Your task to perform on an android device: Check the weather Image 0: 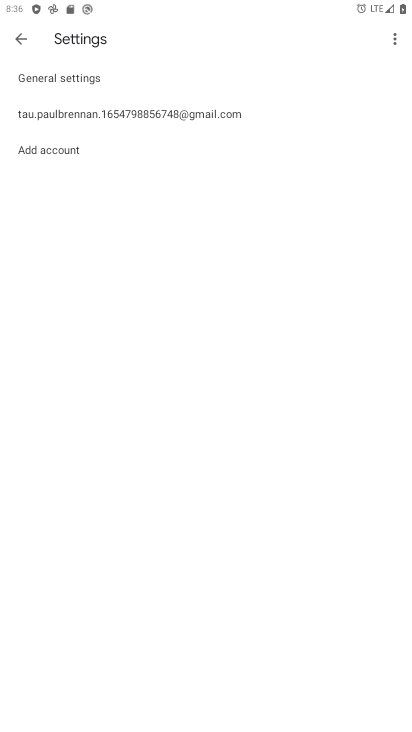
Step 0: click (11, 37)
Your task to perform on an android device: Check the weather Image 1: 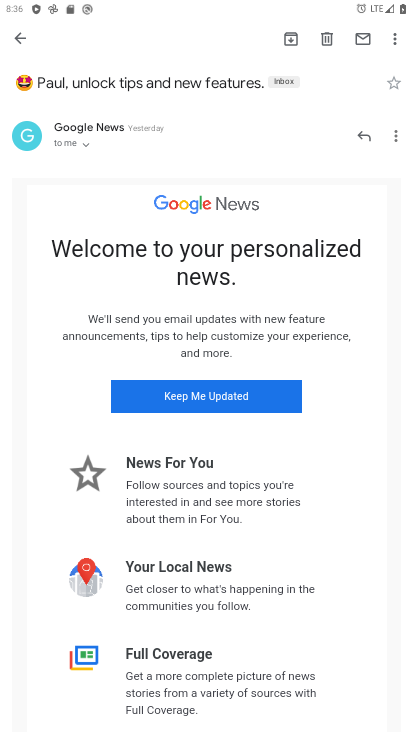
Step 1: press back button
Your task to perform on an android device: Check the weather Image 2: 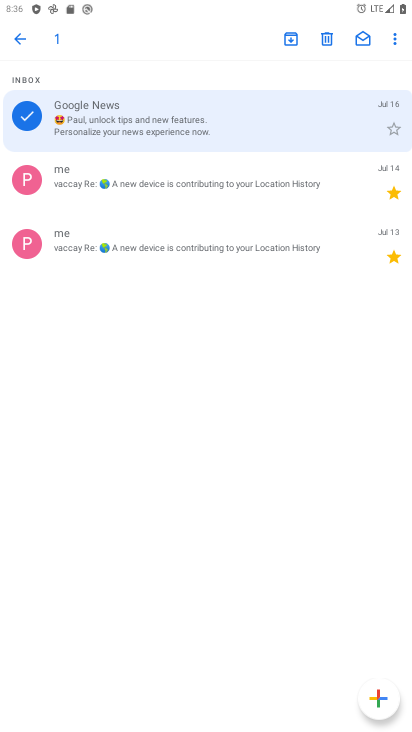
Step 2: press home button
Your task to perform on an android device: Check the weather Image 3: 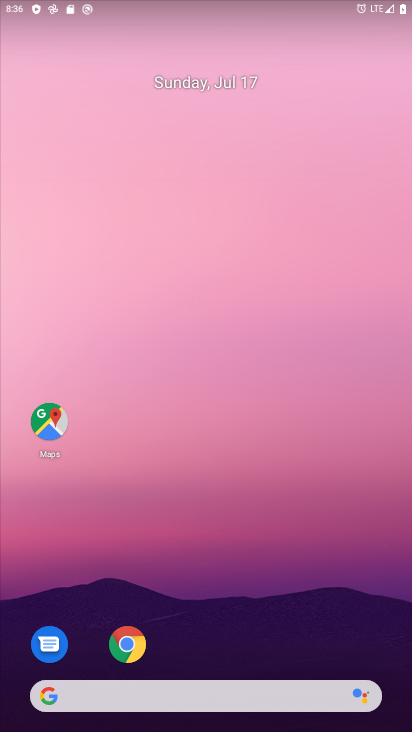
Step 3: click (228, 72)
Your task to perform on an android device: Check the weather Image 4: 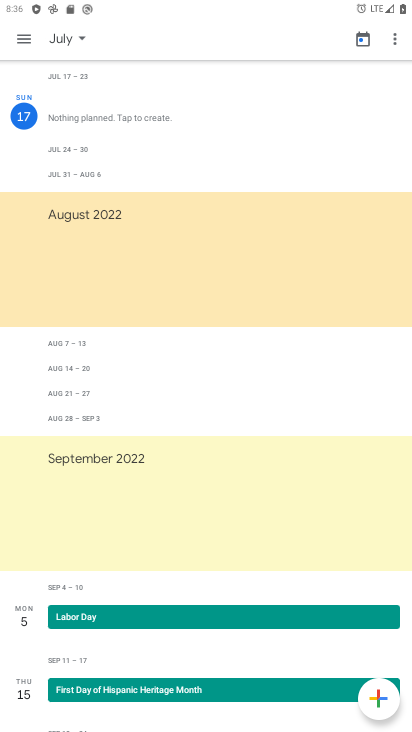
Step 4: press home button
Your task to perform on an android device: Check the weather Image 5: 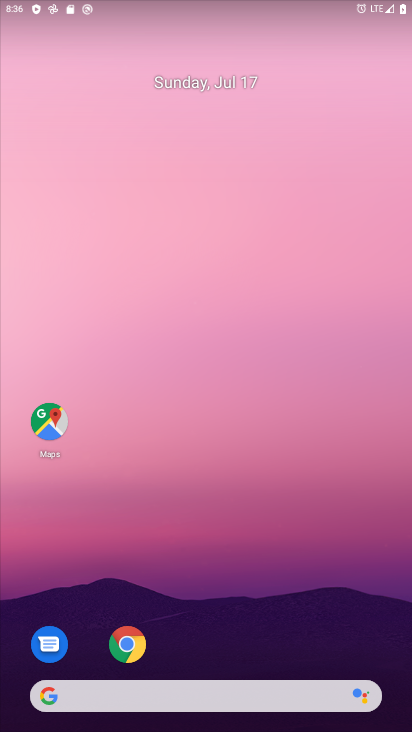
Step 5: drag from (201, 579) to (137, 212)
Your task to perform on an android device: Check the weather Image 6: 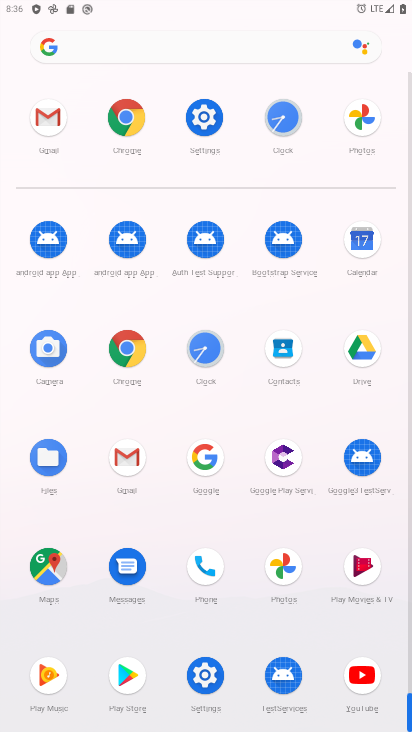
Step 6: click (132, 134)
Your task to perform on an android device: Check the weather Image 7: 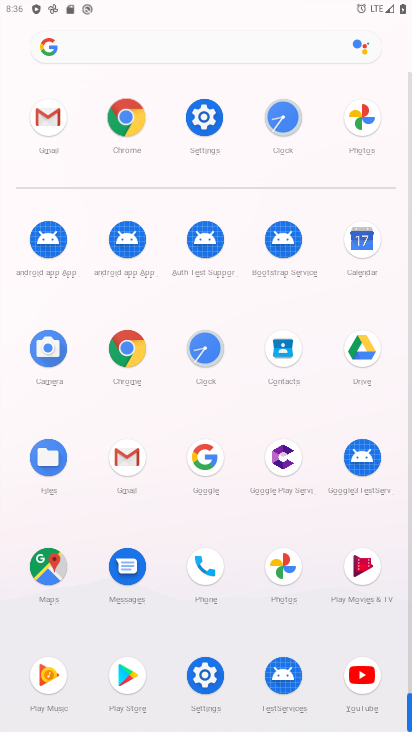
Step 7: click (132, 134)
Your task to perform on an android device: Check the weather Image 8: 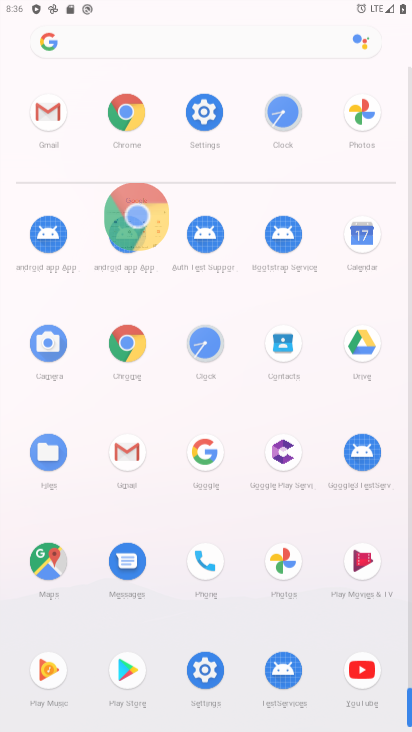
Step 8: click (132, 134)
Your task to perform on an android device: Check the weather Image 9: 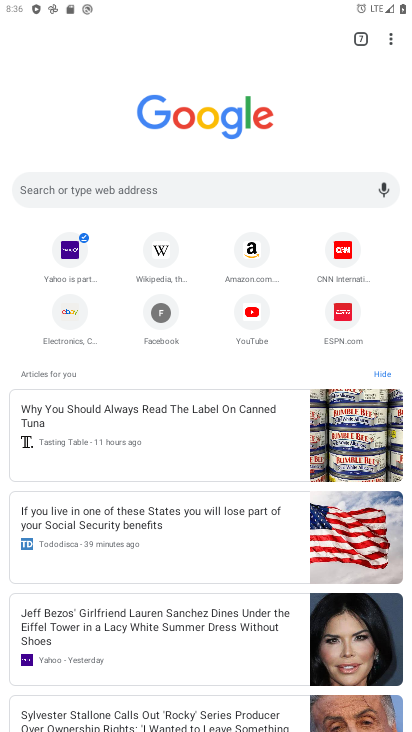
Step 9: click (57, 187)
Your task to perform on an android device: Check the weather Image 10: 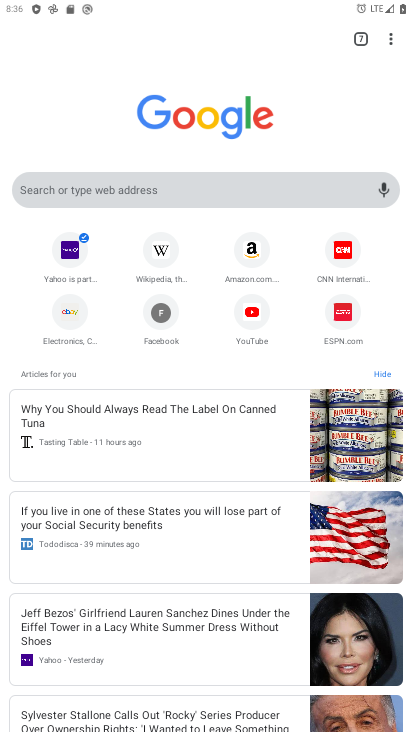
Step 10: click (57, 187)
Your task to perform on an android device: Check the weather Image 11: 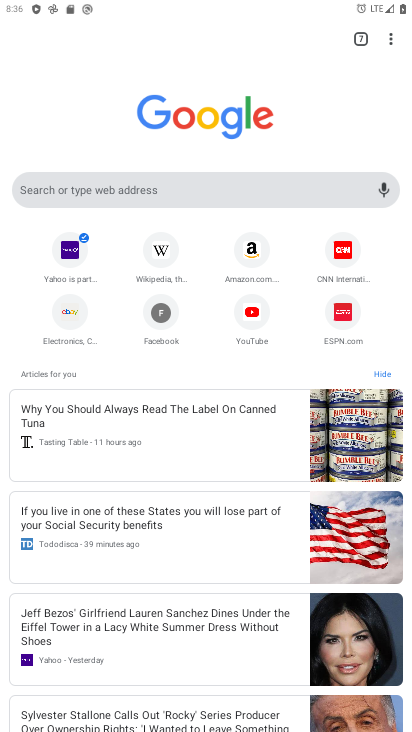
Step 11: click (57, 187)
Your task to perform on an android device: Check the weather Image 12: 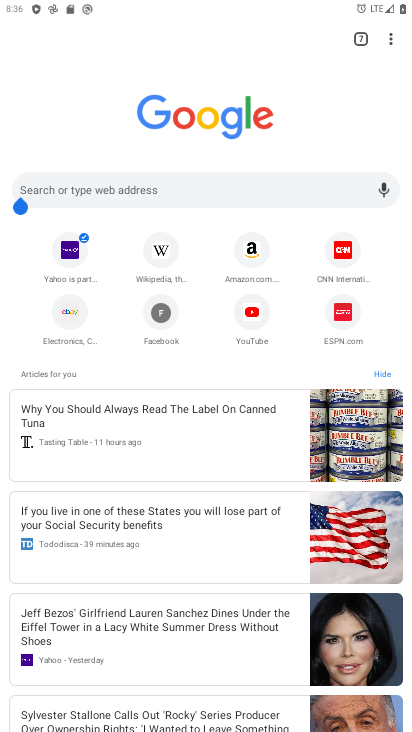
Step 12: click (57, 187)
Your task to perform on an android device: Check the weather Image 13: 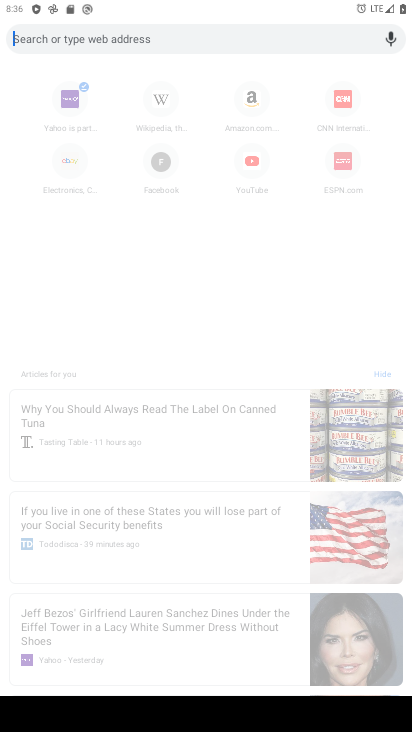
Step 13: type "weather today"
Your task to perform on an android device: Check the weather Image 14: 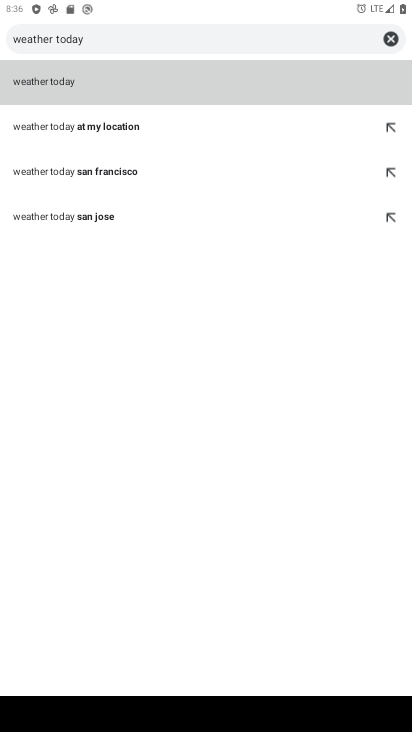
Step 14: click (43, 83)
Your task to perform on an android device: Check the weather Image 15: 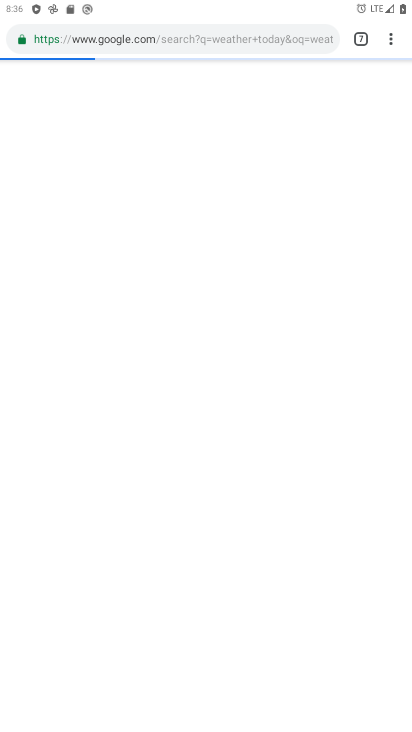
Step 15: click (47, 83)
Your task to perform on an android device: Check the weather Image 16: 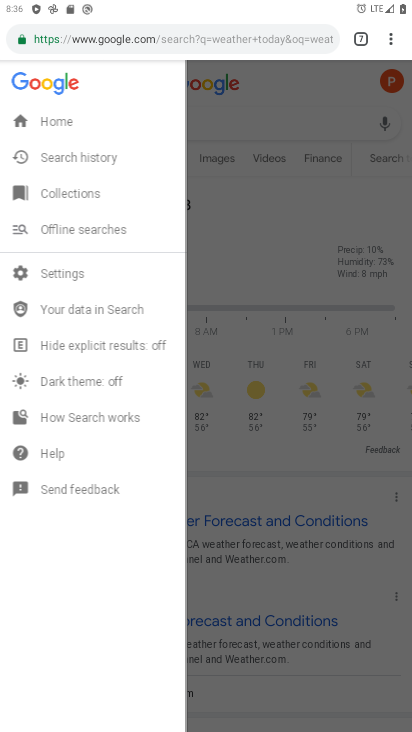
Step 16: click (283, 104)
Your task to perform on an android device: Check the weather Image 17: 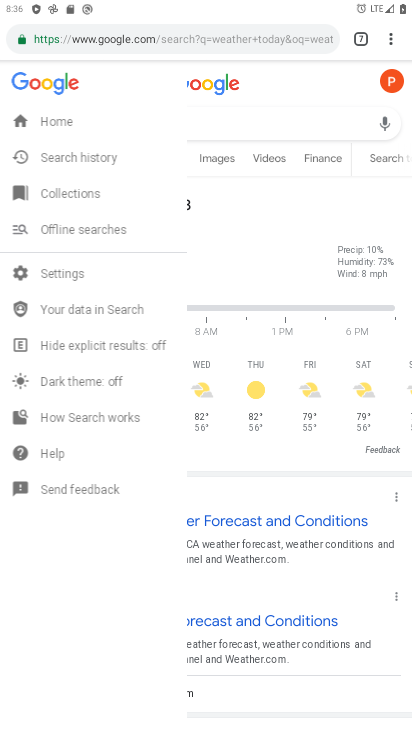
Step 17: click (283, 104)
Your task to perform on an android device: Check the weather Image 18: 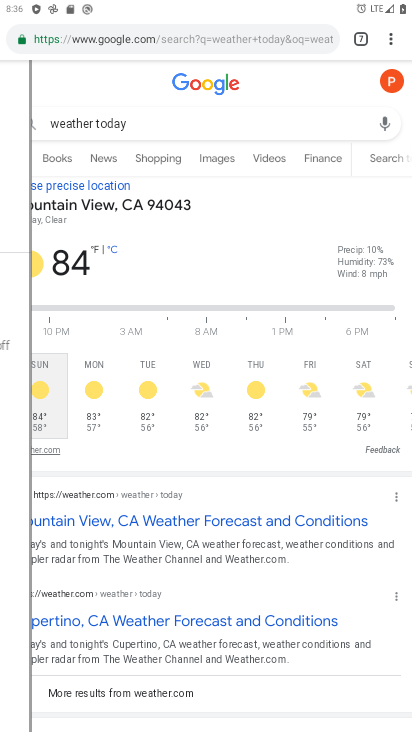
Step 18: click (285, 106)
Your task to perform on an android device: Check the weather Image 19: 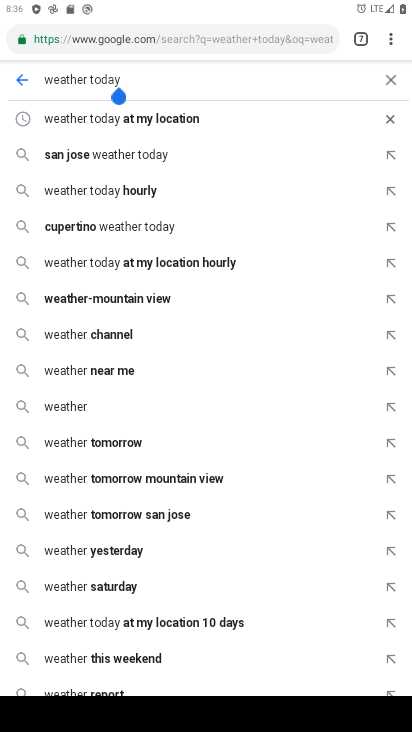
Step 19: task complete